Your task to perform on an android device: Go to accessibility settings Image 0: 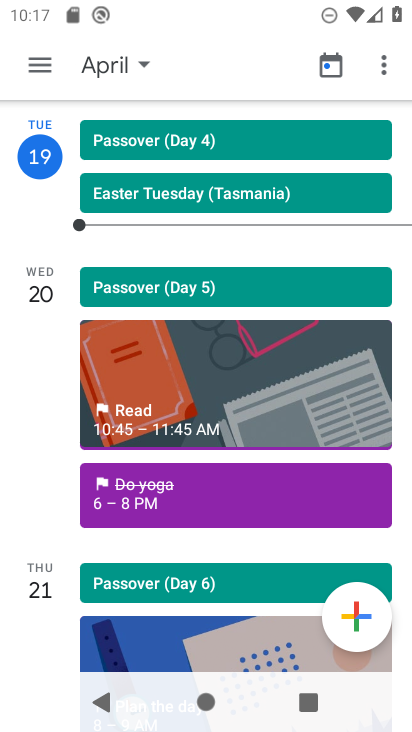
Step 0: press home button
Your task to perform on an android device: Go to accessibility settings Image 1: 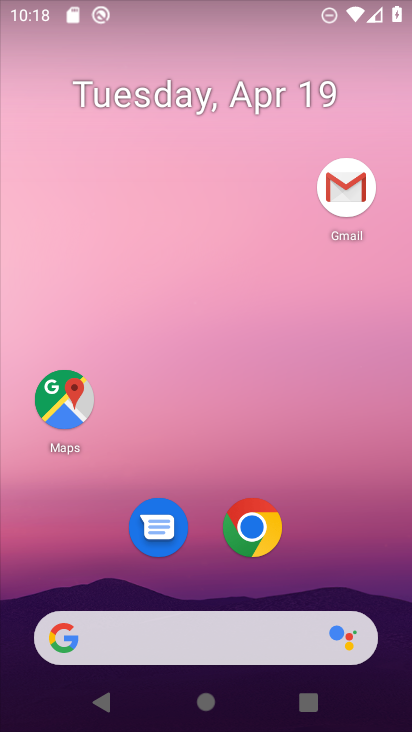
Step 1: drag from (368, 545) to (322, 111)
Your task to perform on an android device: Go to accessibility settings Image 2: 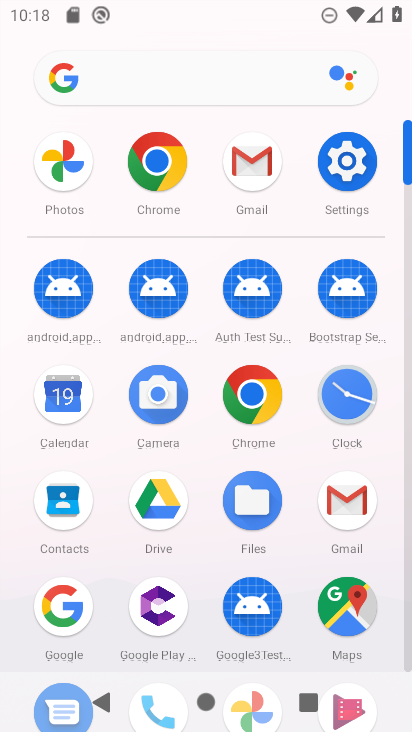
Step 2: click (348, 177)
Your task to perform on an android device: Go to accessibility settings Image 3: 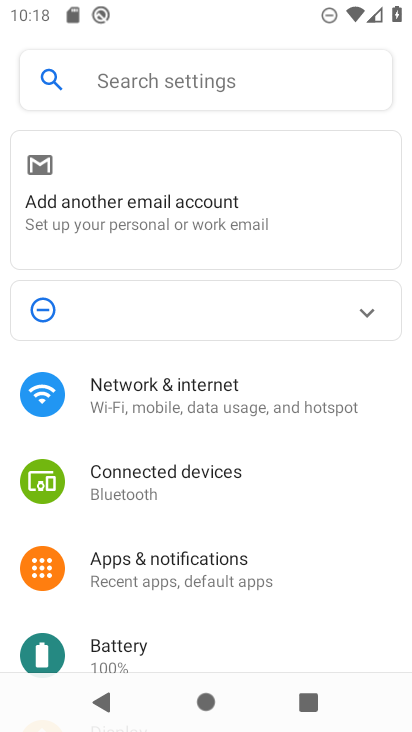
Step 3: drag from (317, 616) to (322, 193)
Your task to perform on an android device: Go to accessibility settings Image 4: 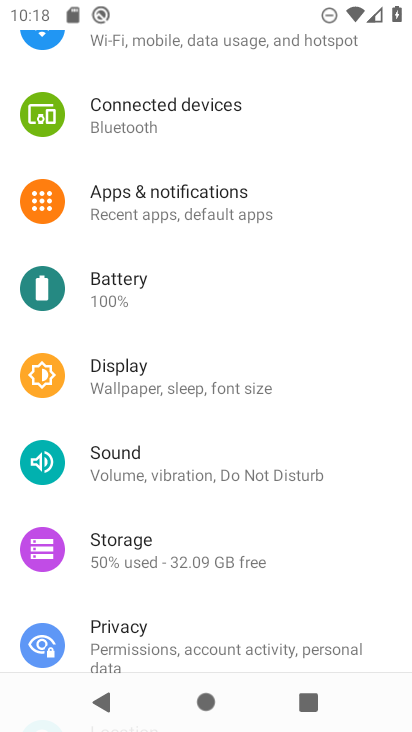
Step 4: drag from (293, 600) to (319, 277)
Your task to perform on an android device: Go to accessibility settings Image 5: 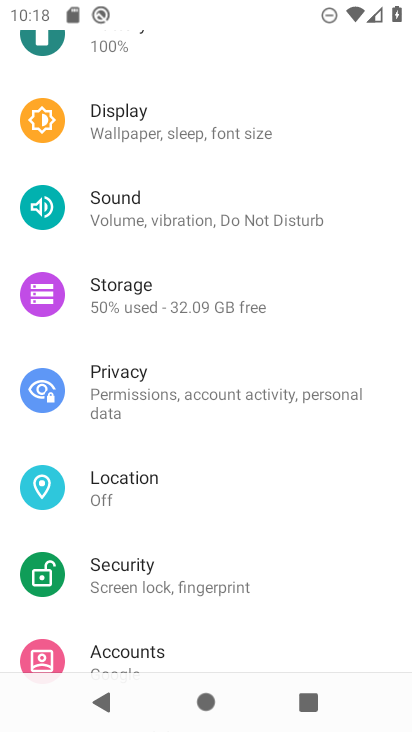
Step 5: drag from (295, 595) to (321, 148)
Your task to perform on an android device: Go to accessibility settings Image 6: 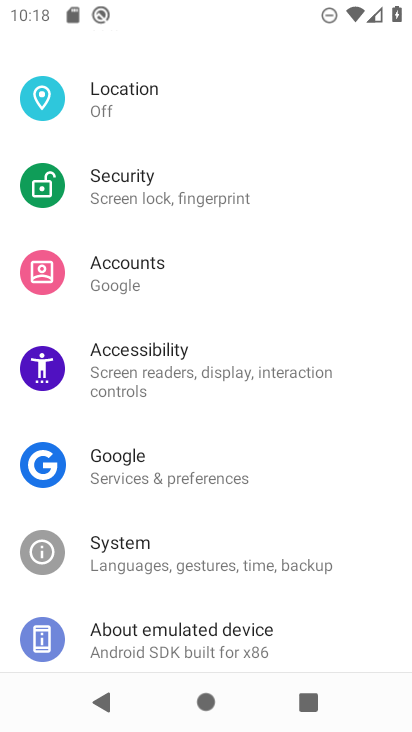
Step 6: click (258, 365)
Your task to perform on an android device: Go to accessibility settings Image 7: 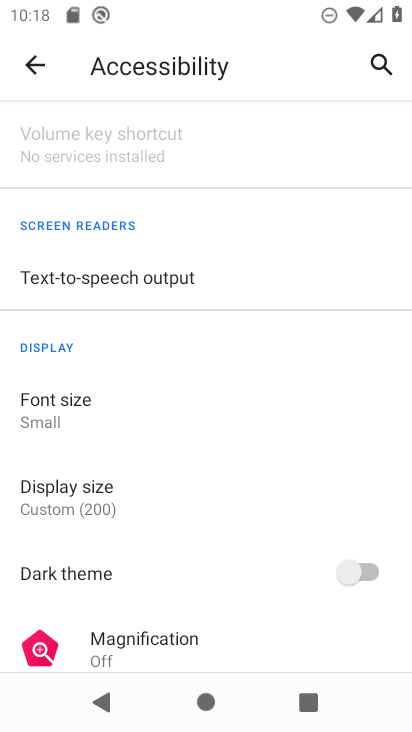
Step 7: task complete